Your task to perform on an android device: change notifications settings Image 0: 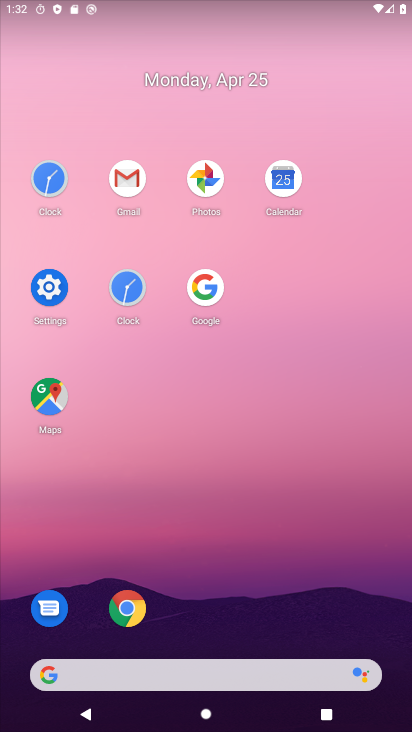
Step 0: click (51, 277)
Your task to perform on an android device: change notifications settings Image 1: 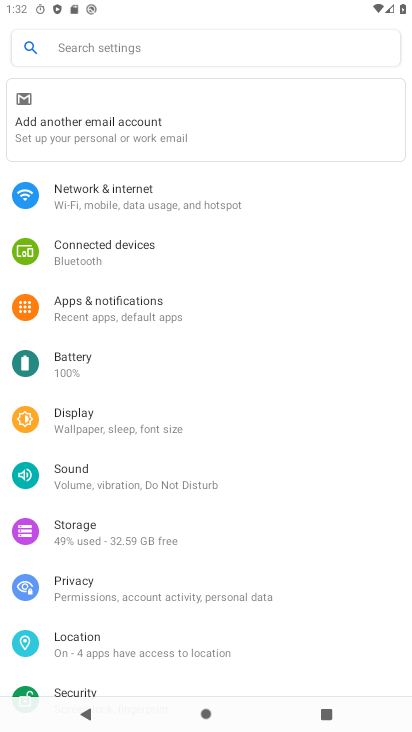
Step 1: click (150, 307)
Your task to perform on an android device: change notifications settings Image 2: 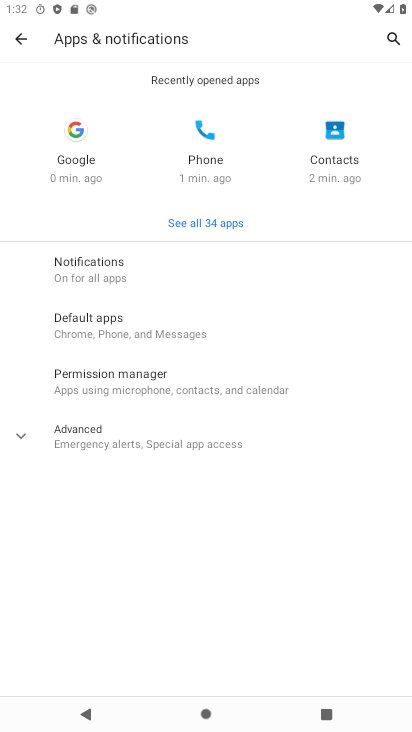
Step 2: click (103, 266)
Your task to perform on an android device: change notifications settings Image 3: 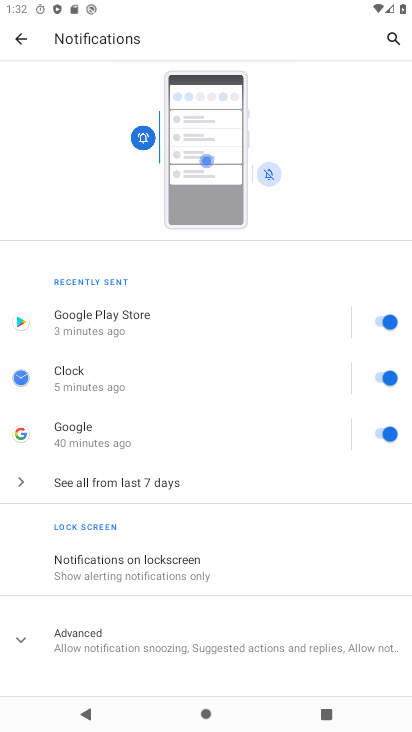
Step 3: click (194, 636)
Your task to perform on an android device: change notifications settings Image 4: 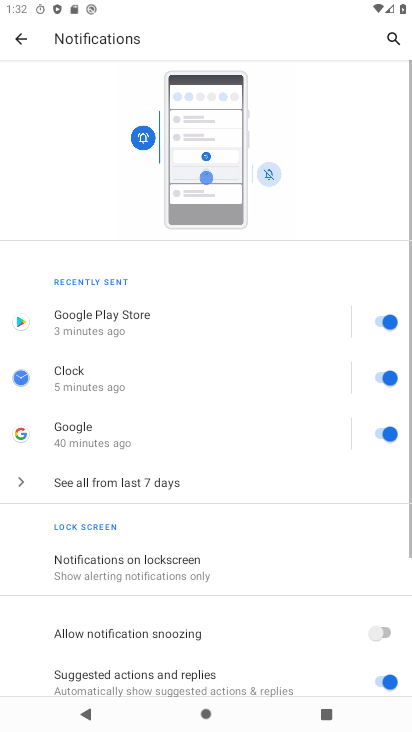
Step 4: drag from (243, 583) to (312, 151)
Your task to perform on an android device: change notifications settings Image 5: 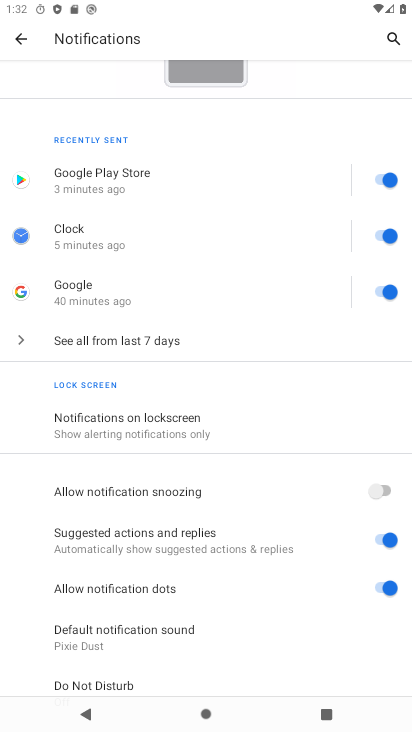
Step 5: click (378, 483)
Your task to perform on an android device: change notifications settings Image 6: 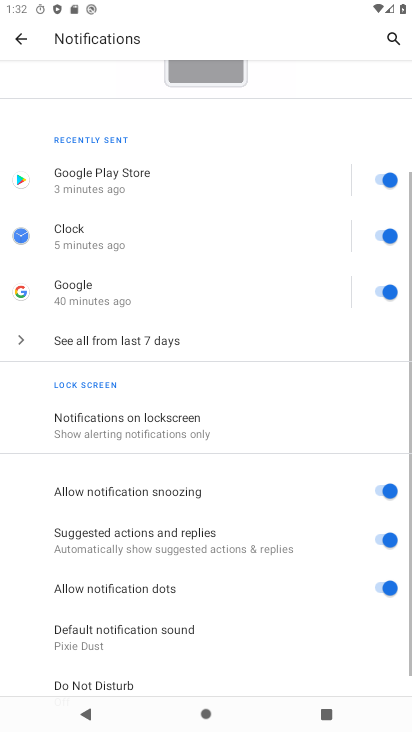
Step 6: click (383, 534)
Your task to perform on an android device: change notifications settings Image 7: 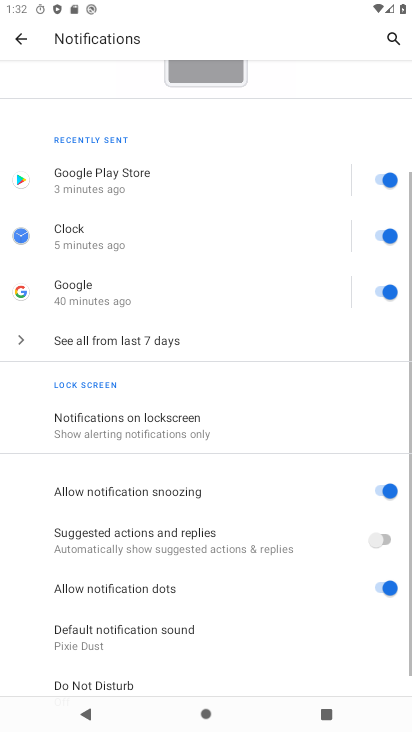
Step 7: click (383, 585)
Your task to perform on an android device: change notifications settings Image 8: 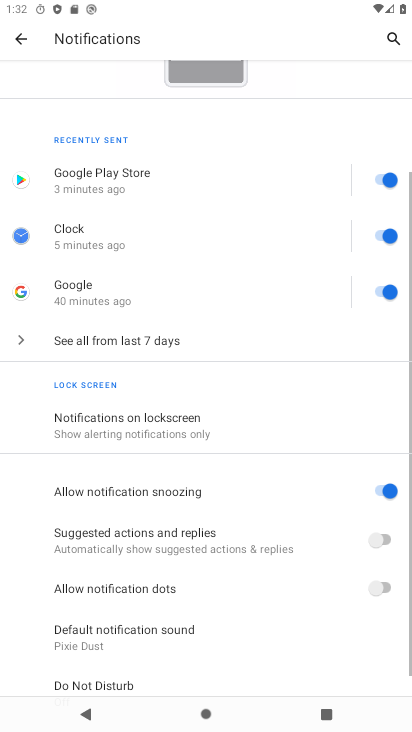
Step 8: task complete